Your task to perform on an android device: remove spam from my inbox in the gmail app Image 0: 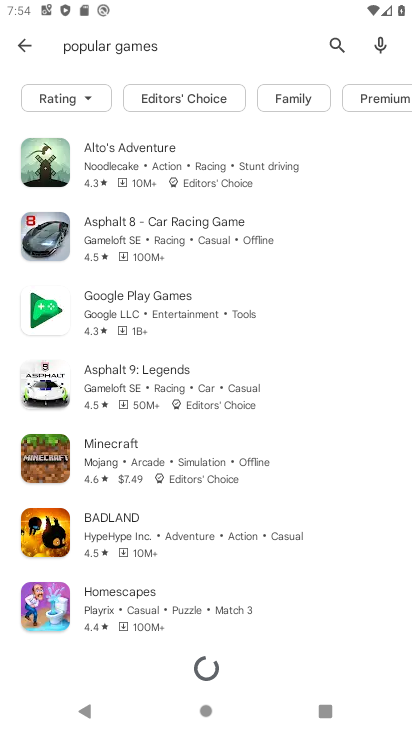
Step 0: press home button
Your task to perform on an android device: remove spam from my inbox in the gmail app Image 1: 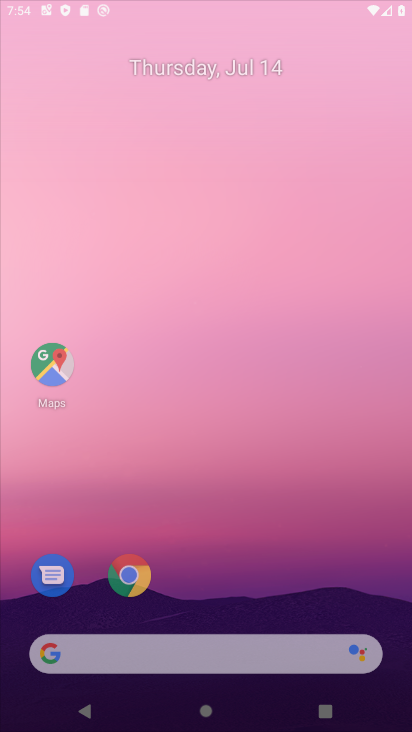
Step 1: drag from (367, 629) to (265, 62)
Your task to perform on an android device: remove spam from my inbox in the gmail app Image 2: 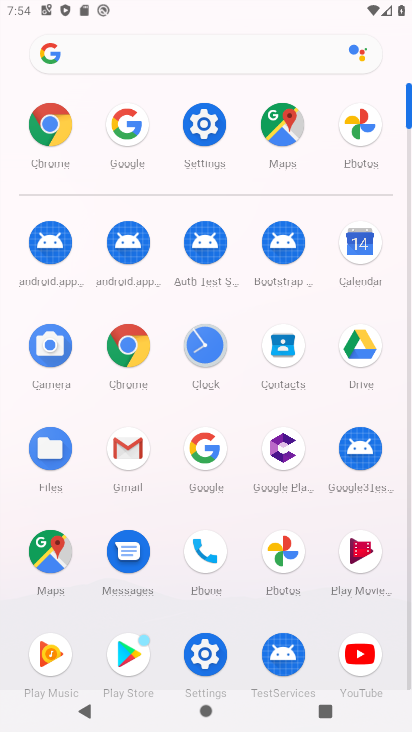
Step 2: click (128, 450)
Your task to perform on an android device: remove spam from my inbox in the gmail app Image 3: 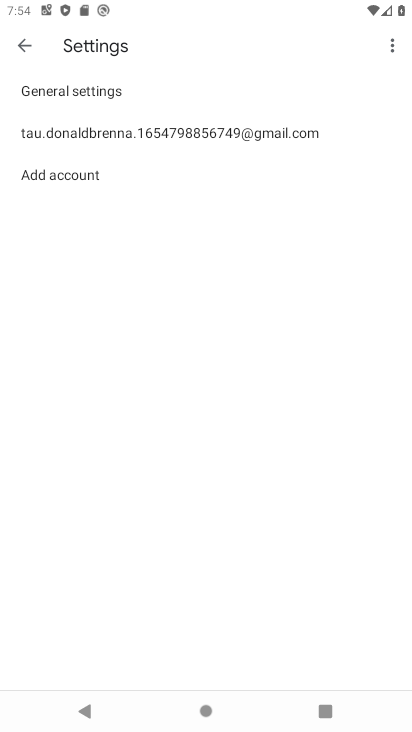
Step 3: press back button
Your task to perform on an android device: remove spam from my inbox in the gmail app Image 4: 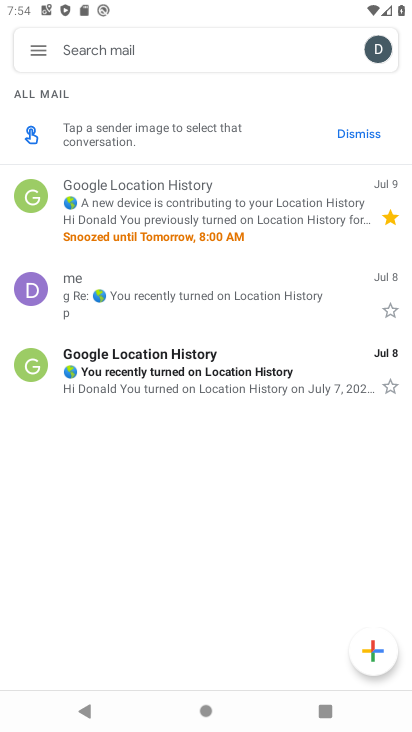
Step 4: click (28, 46)
Your task to perform on an android device: remove spam from my inbox in the gmail app Image 5: 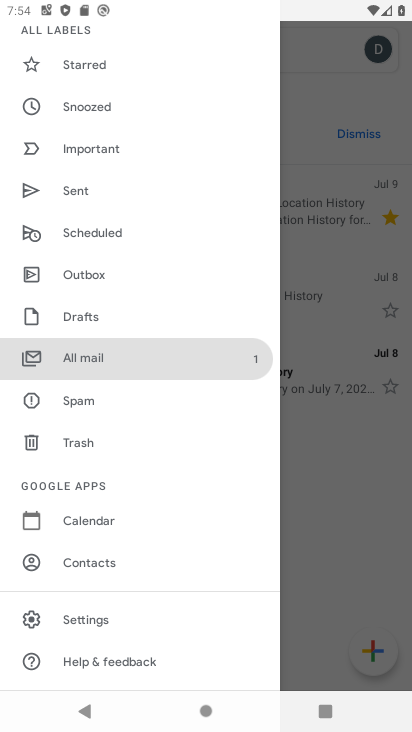
Step 5: click (102, 394)
Your task to perform on an android device: remove spam from my inbox in the gmail app Image 6: 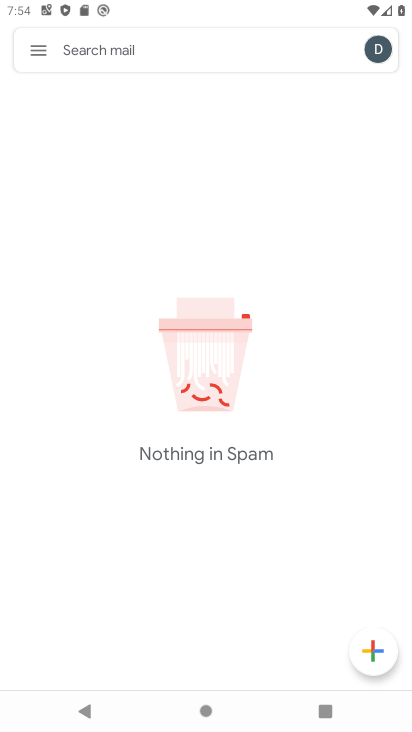
Step 6: task complete